Your task to perform on an android device: Check the latest 3D printers on Target. Image 0: 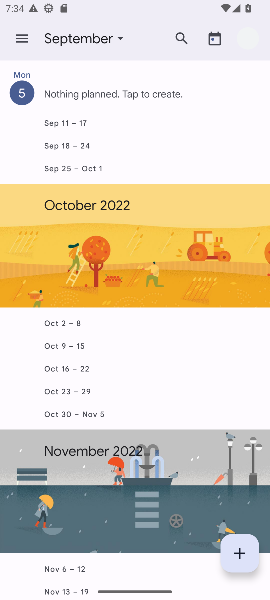
Step 0: drag from (200, 327) to (206, 395)
Your task to perform on an android device: Check the latest 3D printers on Target. Image 1: 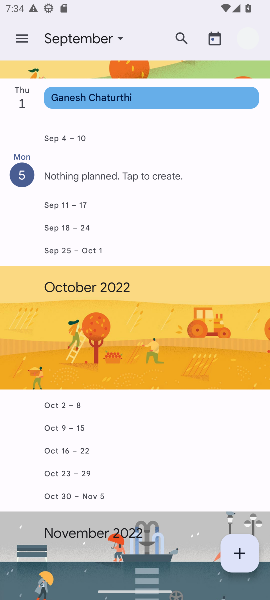
Step 1: press home button
Your task to perform on an android device: Check the latest 3D printers on Target. Image 2: 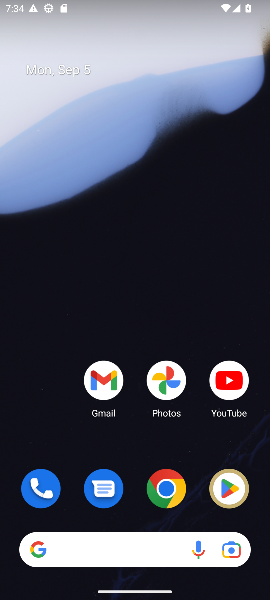
Step 2: click (172, 500)
Your task to perform on an android device: Check the latest 3D printers on Target. Image 3: 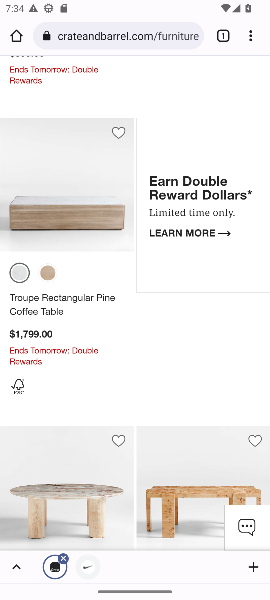
Step 3: click (121, 35)
Your task to perform on an android device: Check the latest 3D printers on Target. Image 4: 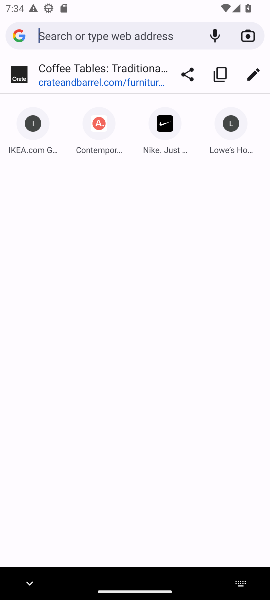
Step 4: type "target"
Your task to perform on an android device: Check the latest 3D printers on Target. Image 5: 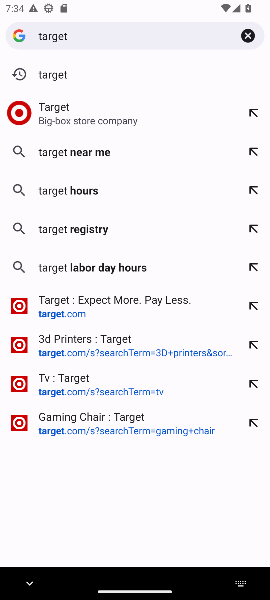
Step 5: press enter
Your task to perform on an android device: Check the latest 3D printers on Target. Image 6: 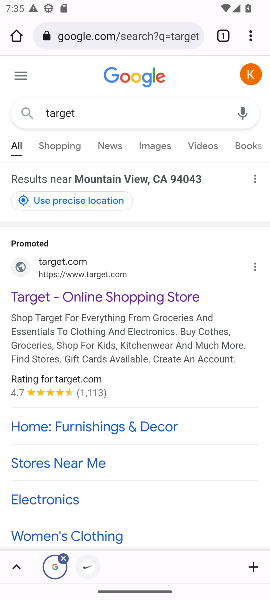
Step 6: click (164, 305)
Your task to perform on an android device: Check the latest 3D printers on Target. Image 7: 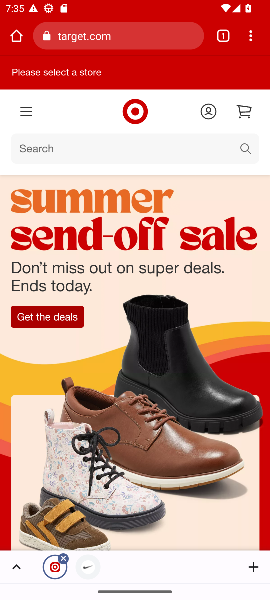
Step 7: click (120, 146)
Your task to perform on an android device: Check the latest 3D printers on Target. Image 8: 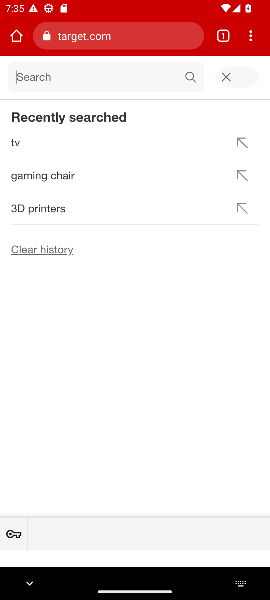
Step 8: type "latest 3D printers"
Your task to perform on an android device: Check the latest 3D printers on Target. Image 9: 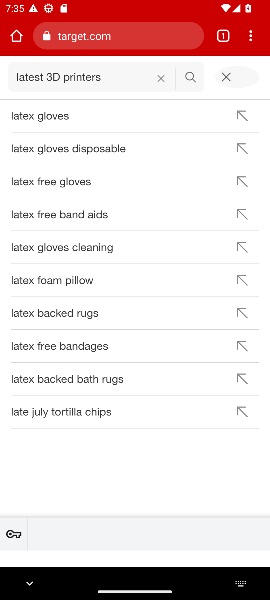
Step 9: press enter
Your task to perform on an android device: Check the latest 3D printers on Target. Image 10: 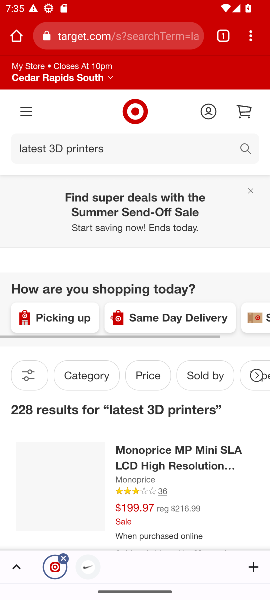
Step 10: click (27, 376)
Your task to perform on an android device: Check the latest 3D printers on Target. Image 11: 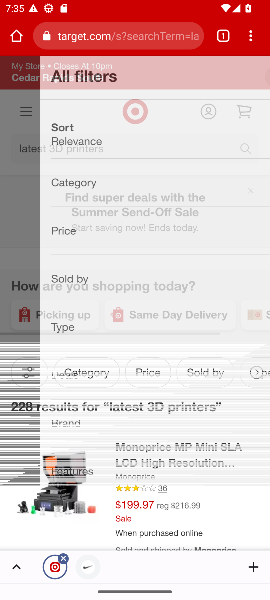
Step 11: drag from (108, 128) to (114, 93)
Your task to perform on an android device: Check the latest 3D printers on Target. Image 12: 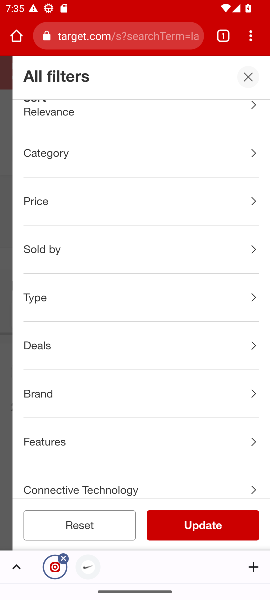
Step 12: drag from (139, 153) to (143, 299)
Your task to perform on an android device: Check the latest 3D printers on Target. Image 13: 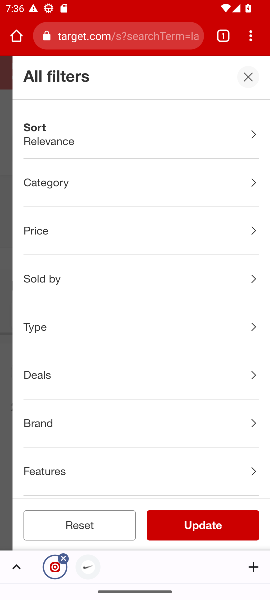
Step 13: click (136, 136)
Your task to perform on an android device: Check the latest 3D printers on Target. Image 14: 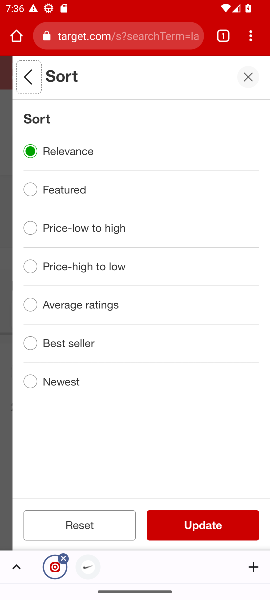
Step 14: click (54, 381)
Your task to perform on an android device: Check the latest 3D printers on Target. Image 15: 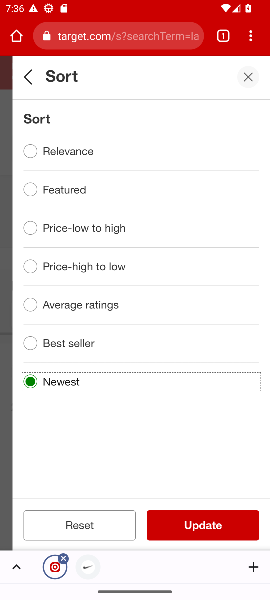
Step 15: click (216, 523)
Your task to perform on an android device: Check the latest 3D printers on Target. Image 16: 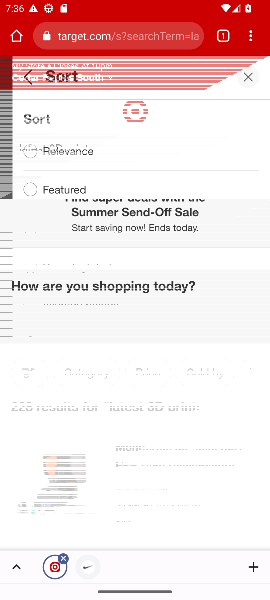
Step 16: drag from (154, 412) to (154, 479)
Your task to perform on an android device: Check the latest 3D printers on Target. Image 17: 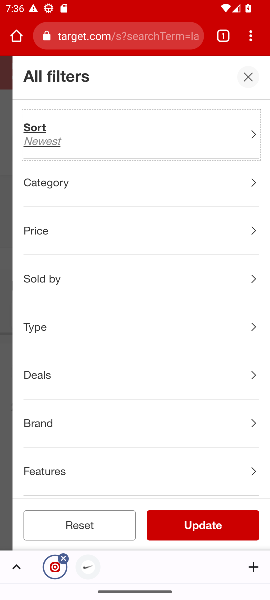
Step 17: click (235, 529)
Your task to perform on an android device: Check the latest 3D printers on Target. Image 18: 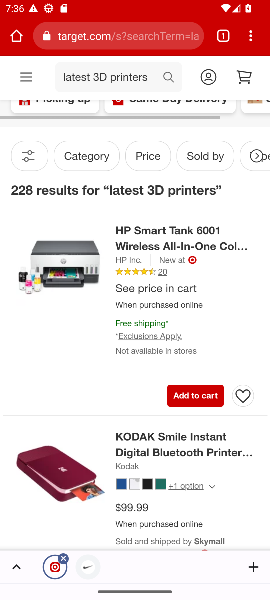
Step 18: task complete